Your task to perform on an android device: Go to notification settings Image 0: 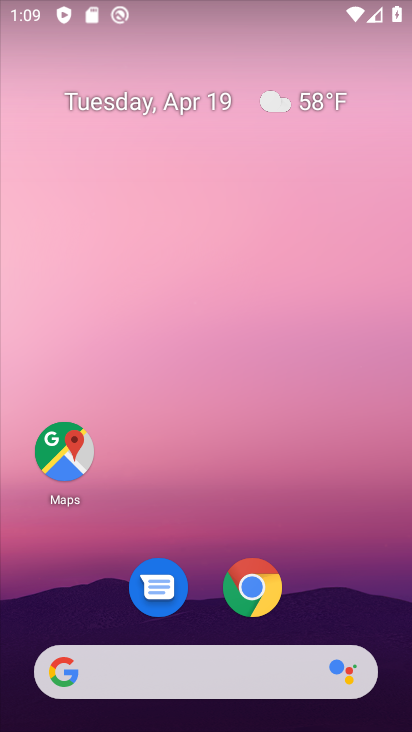
Step 0: drag from (324, 500) to (284, 194)
Your task to perform on an android device: Go to notification settings Image 1: 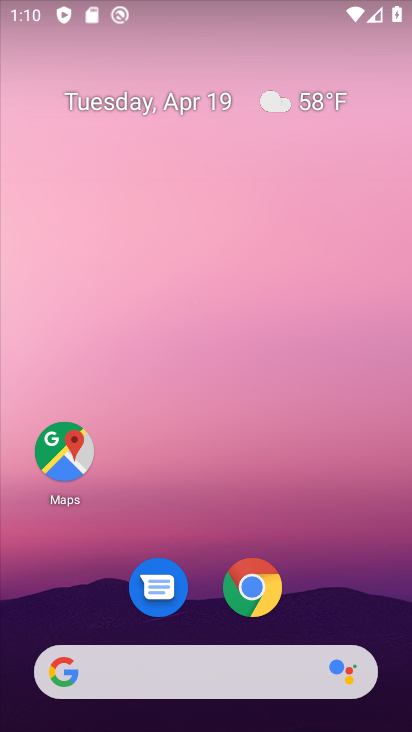
Step 1: drag from (365, 590) to (206, 60)
Your task to perform on an android device: Go to notification settings Image 2: 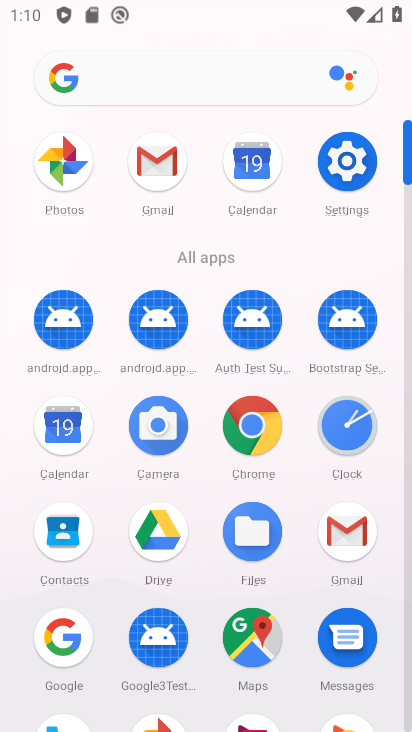
Step 2: click (368, 162)
Your task to perform on an android device: Go to notification settings Image 3: 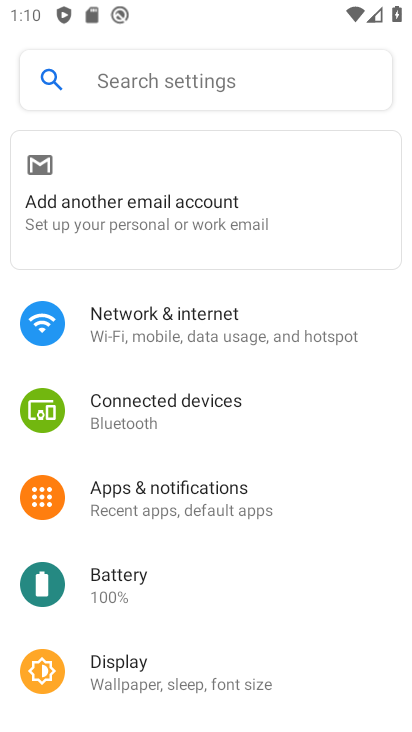
Step 3: click (164, 505)
Your task to perform on an android device: Go to notification settings Image 4: 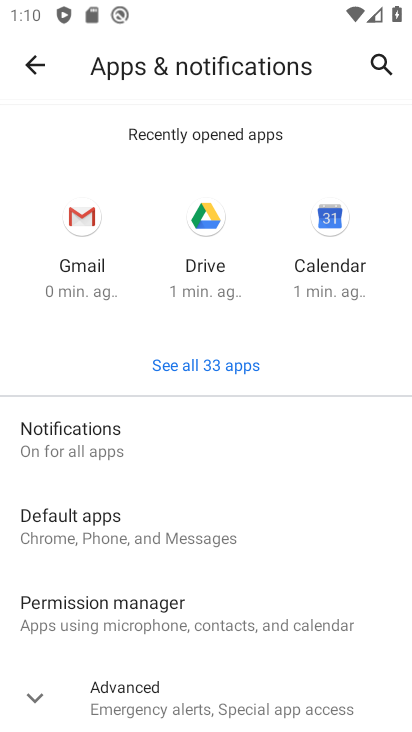
Step 4: task complete